Your task to perform on an android device: toggle javascript in the chrome app Image 0: 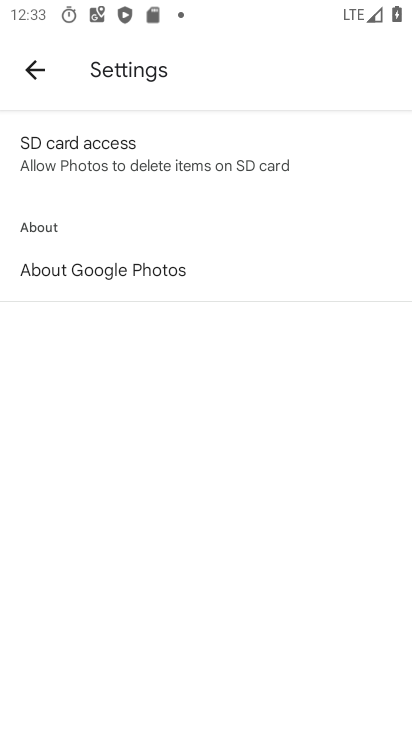
Step 0: press home button
Your task to perform on an android device: toggle javascript in the chrome app Image 1: 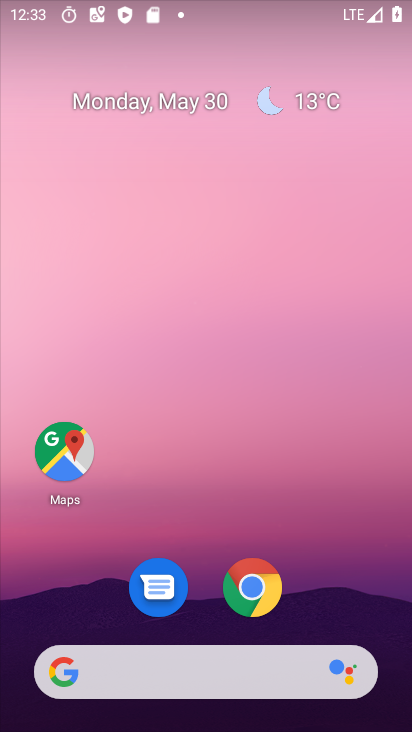
Step 1: drag from (308, 434) to (291, 284)
Your task to perform on an android device: toggle javascript in the chrome app Image 2: 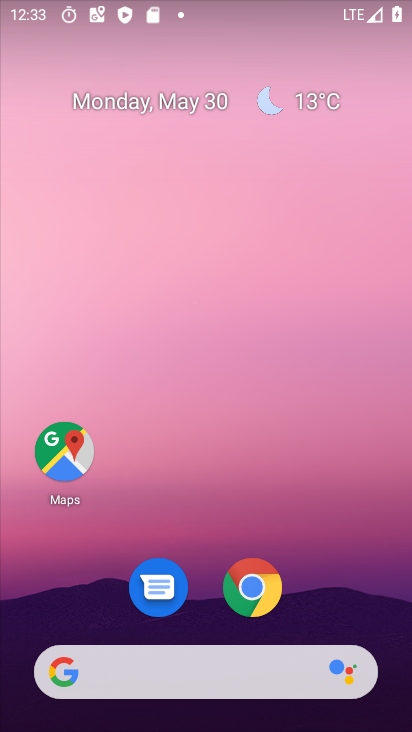
Step 2: click (279, 140)
Your task to perform on an android device: toggle javascript in the chrome app Image 3: 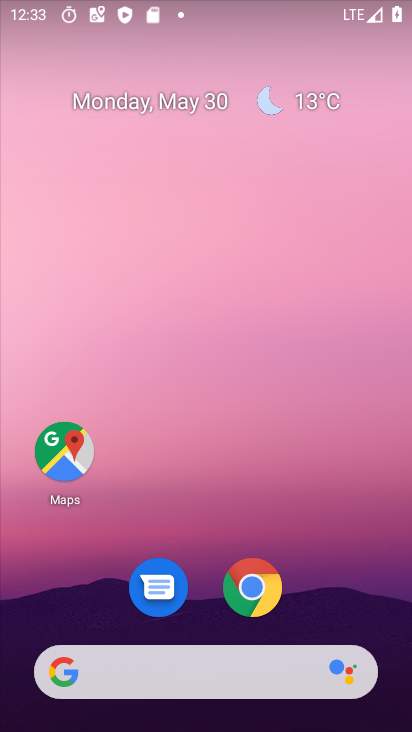
Step 3: click (244, 585)
Your task to perform on an android device: toggle javascript in the chrome app Image 4: 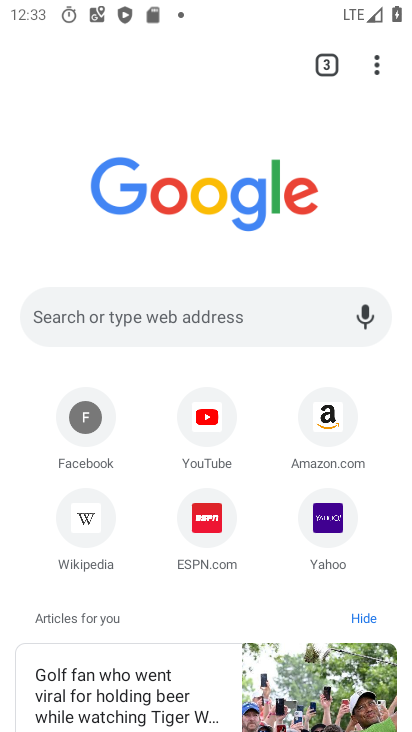
Step 4: drag from (378, 55) to (242, 545)
Your task to perform on an android device: toggle javascript in the chrome app Image 5: 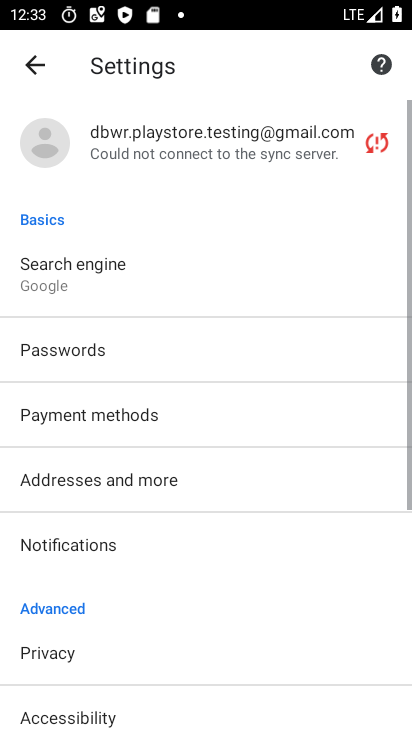
Step 5: drag from (232, 572) to (278, 22)
Your task to perform on an android device: toggle javascript in the chrome app Image 6: 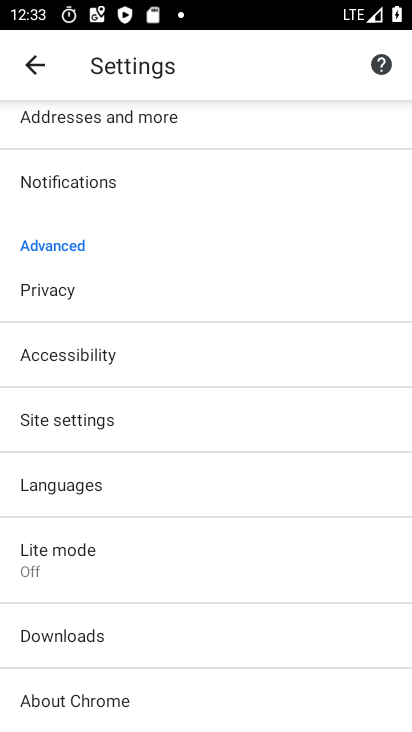
Step 6: click (112, 409)
Your task to perform on an android device: toggle javascript in the chrome app Image 7: 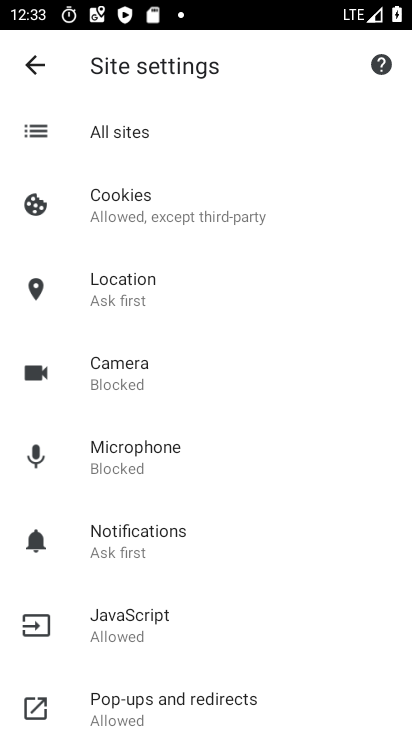
Step 7: click (126, 620)
Your task to perform on an android device: toggle javascript in the chrome app Image 8: 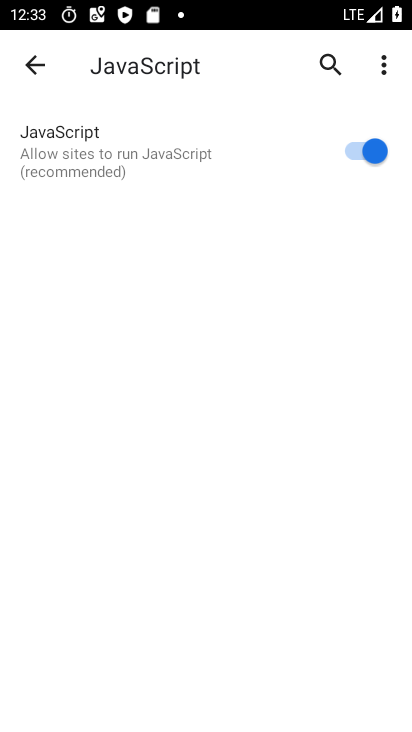
Step 8: click (369, 140)
Your task to perform on an android device: toggle javascript in the chrome app Image 9: 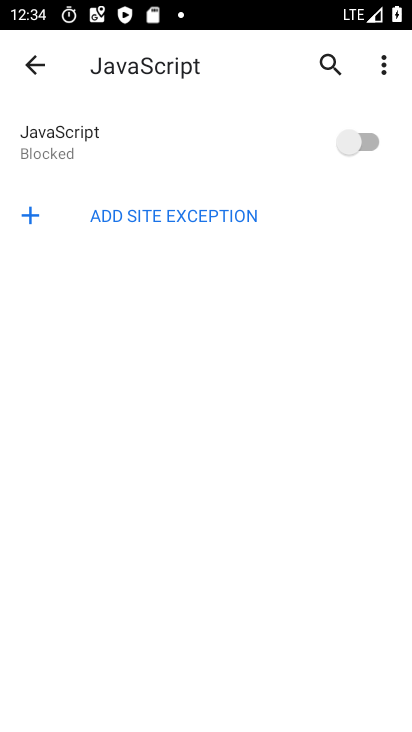
Step 9: task complete